Your task to perform on an android device: turn off sleep mode Image 0: 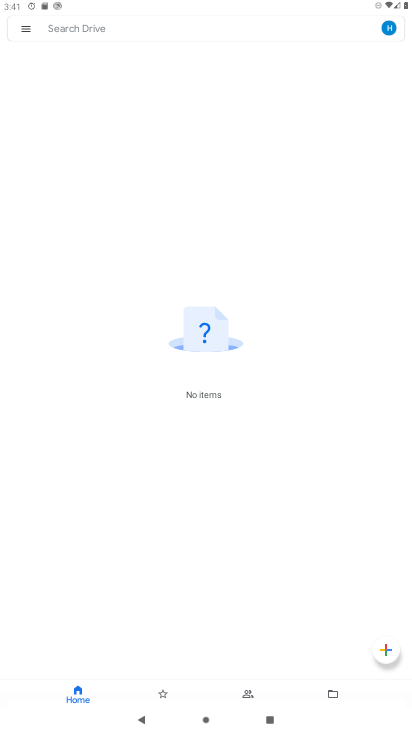
Step 0: press home button
Your task to perform on an android device: turn off sleep mode Image 1: 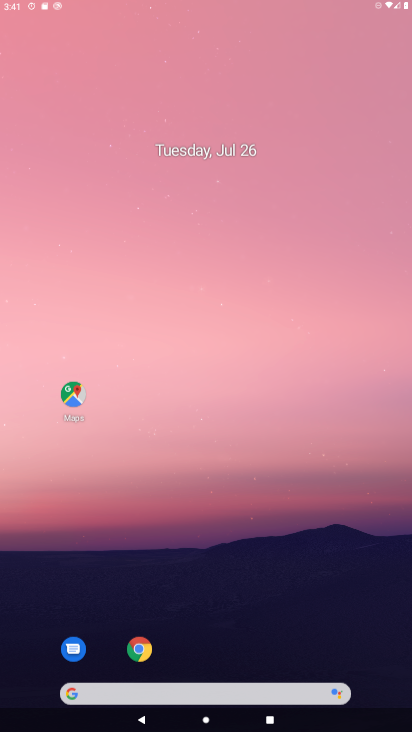
Step 1: drag from (364, 650) to (200, 24)
Your task to perform on an android device: turn off sleep mode Image 2: 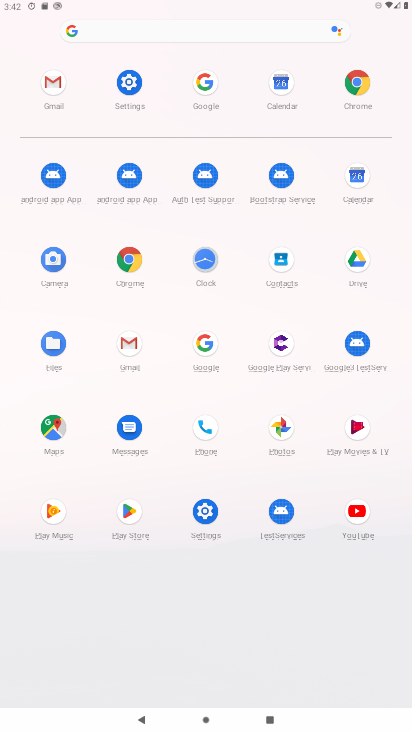
Step 2: click (203, 505)
Your task to perform on an android device: turn off sleep mode Image 3: 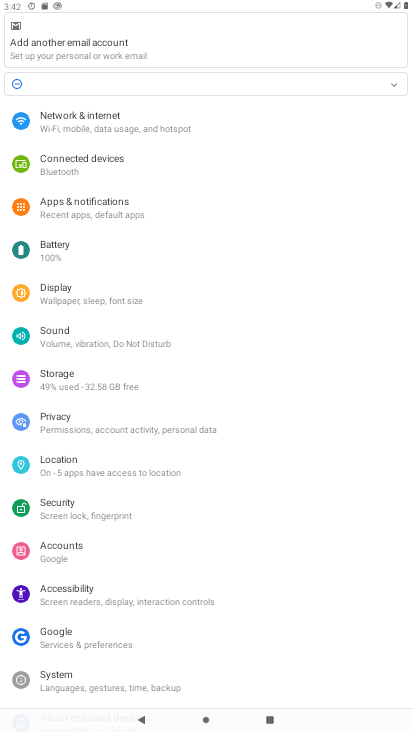
Step 3: task complete